Your task to perform on an android device: toggle notification dots Image 0: 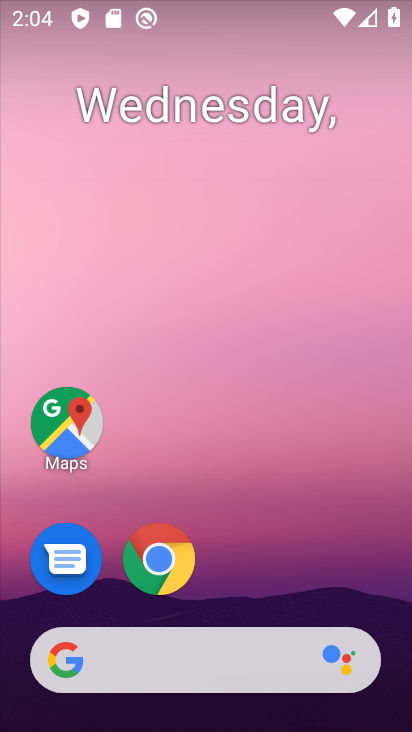
Step 0: drag from (188, 563) to (256, 4)
Your task to perform on an android device: toggle notification dots Image 1: 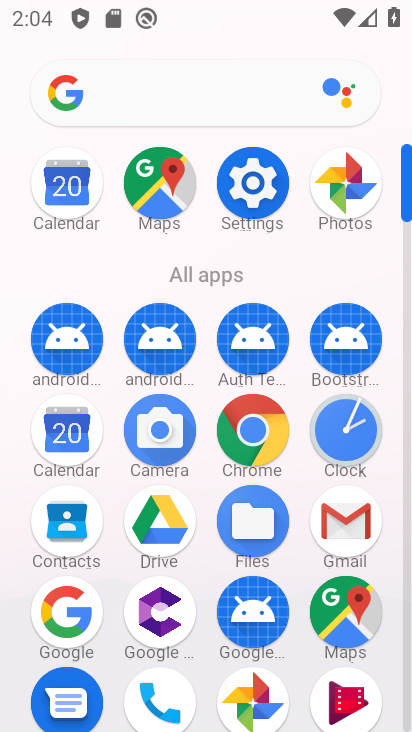
Step 1: click (257, 181)
Your task to perform on an android device: toggle notification dots Image 2: 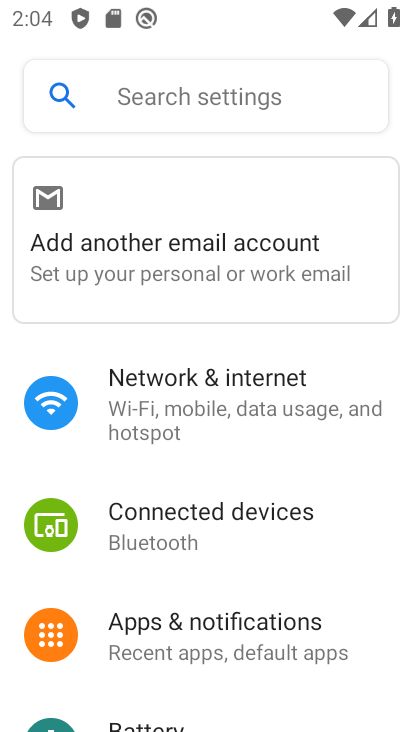
Step 2: click (167, 635)
Your task to perform on an android device: toggle notification dots Image 3: 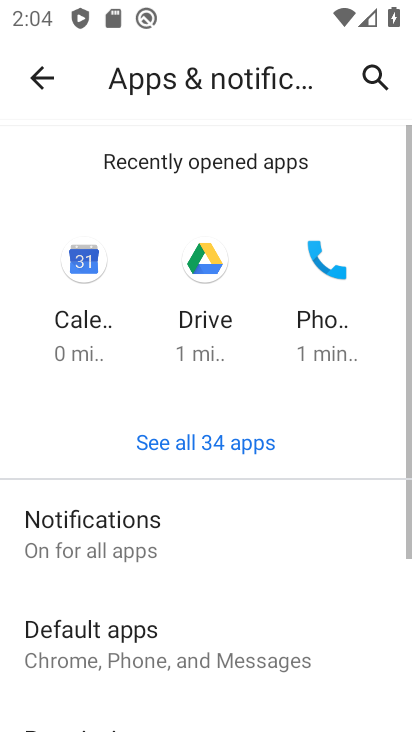
Step 3: click (127, 538)
Your task to perform on an android device: toggle notification dots Image 4: 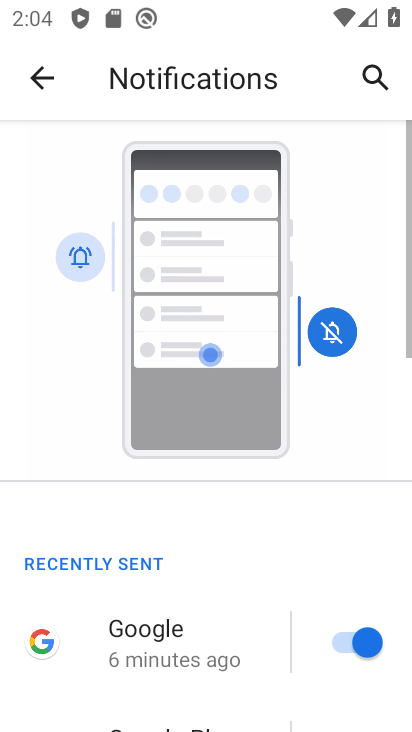
Step 4: drag from (182, 675) to (237, 106)
Your task to perform on an android device: toggle notification dots Image 5: 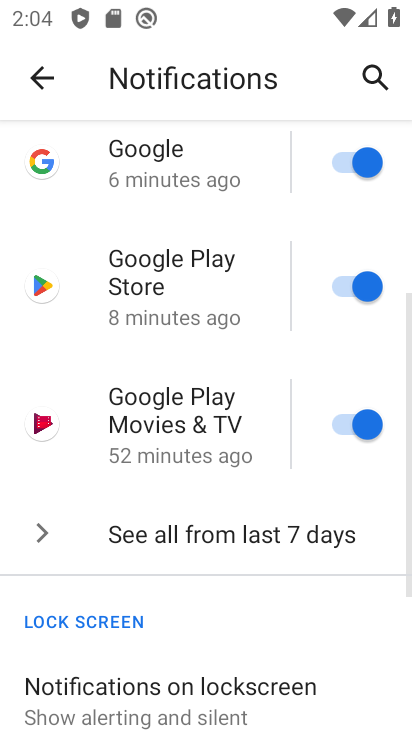
Step 5: drag from (139, 650) to (188, 184)
Your task to perform on an android device: toggle notification dots Image 6: 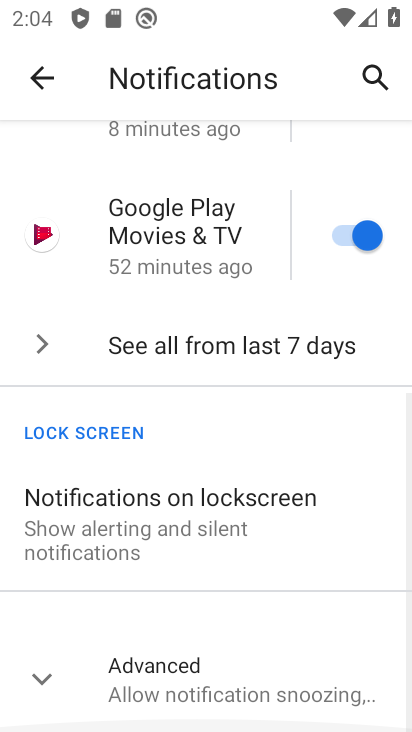
Step 6: click (188, 675)
Your task to perform on an android device: toggle notification dots Image 7: 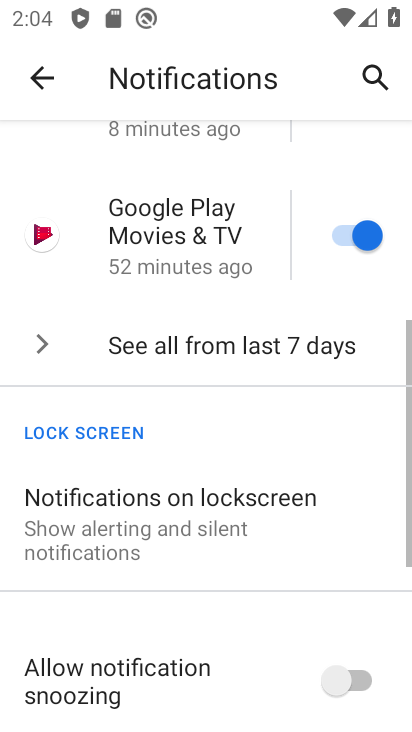
Step 7: drag from (192, 666) to (252, 145)
Your task to perform on an android device: toggle notification dots Image 8: 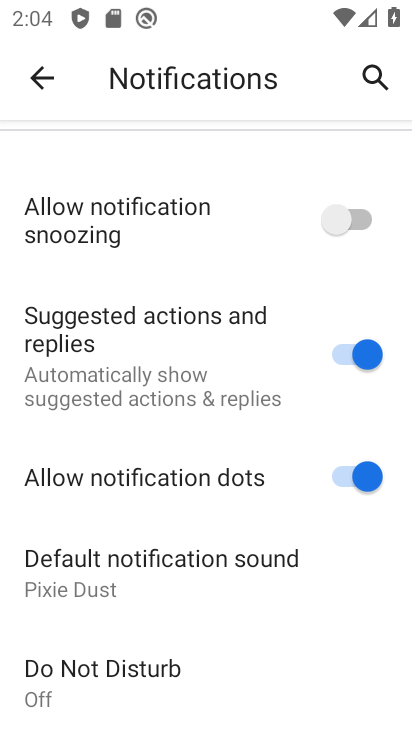
Step 8: click (354, 486)
Your task to perform on an android device: toggle notification dots Image 9: 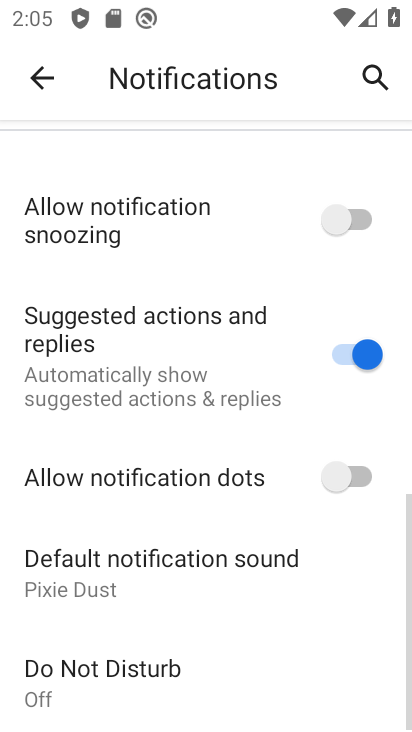
Step 9: task complete